Your task to perform on an android device: uninstall "Lyft - Rideshare, Bikes, Scooters & Transit" Image 0: 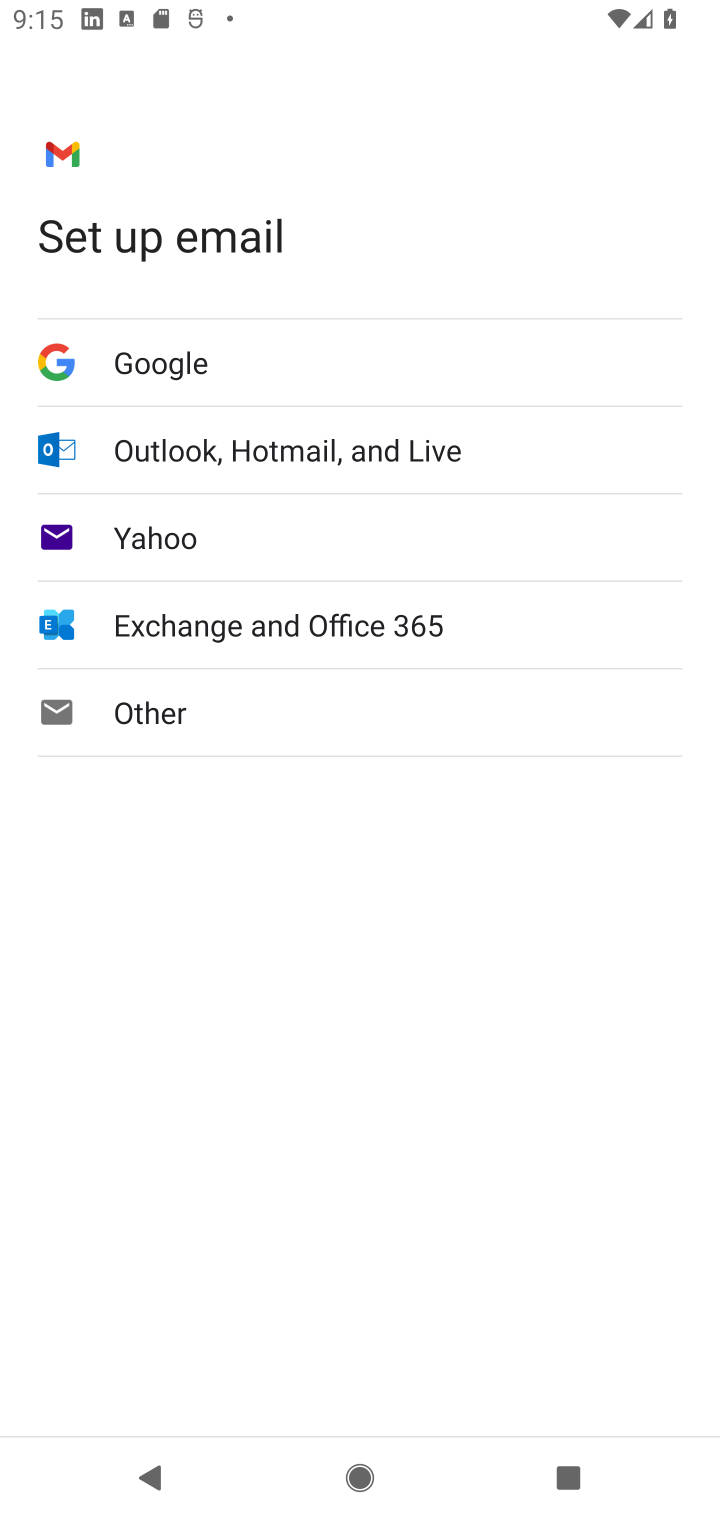
Step 0: press home button
Your task to perform on an android device: uninstall "Lyft - Rideshare, Bikes, Scooters & Transit" Image 1: 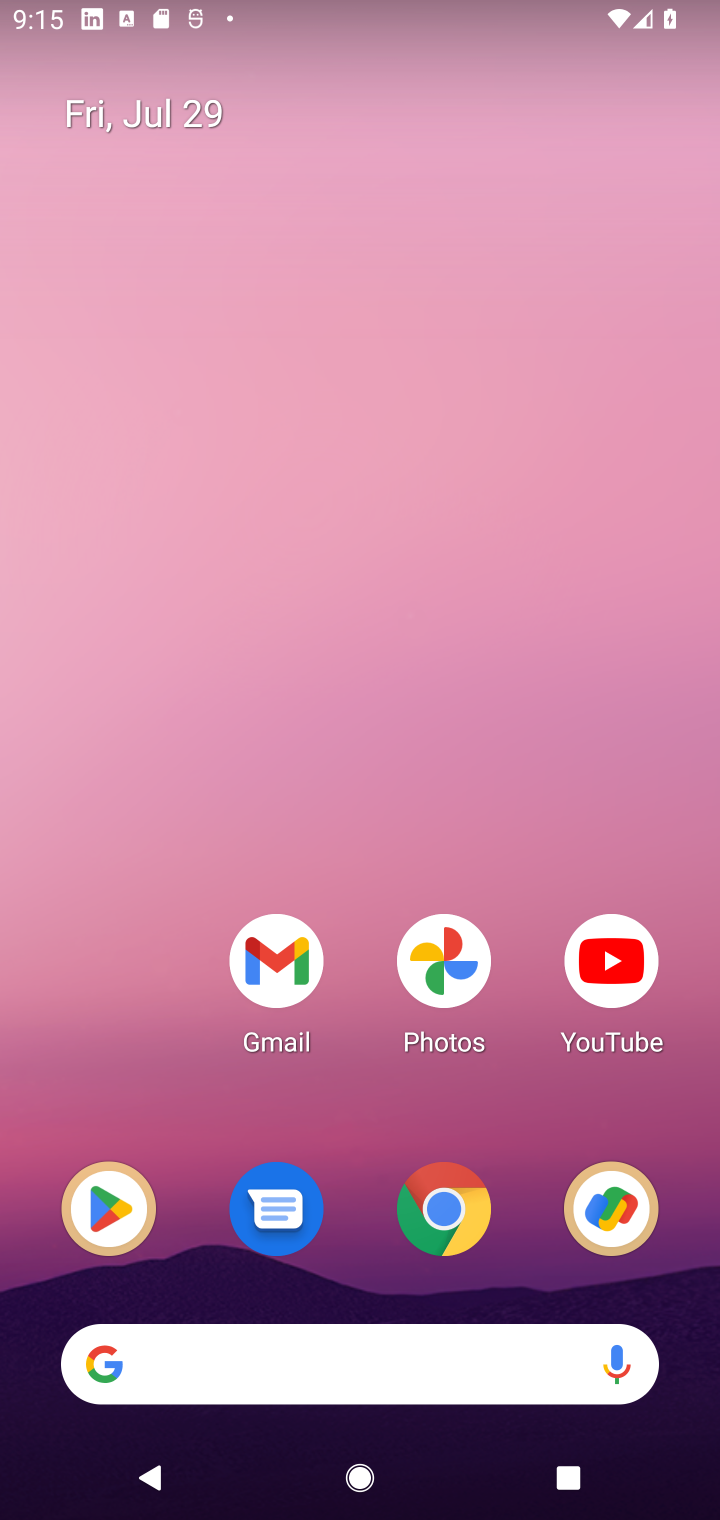
Step 1: click (120, 1216)
Your task to perform on an android device: uninstall "Lyft - Rideshare, Bikes, Scooters & Transit" Image 2: 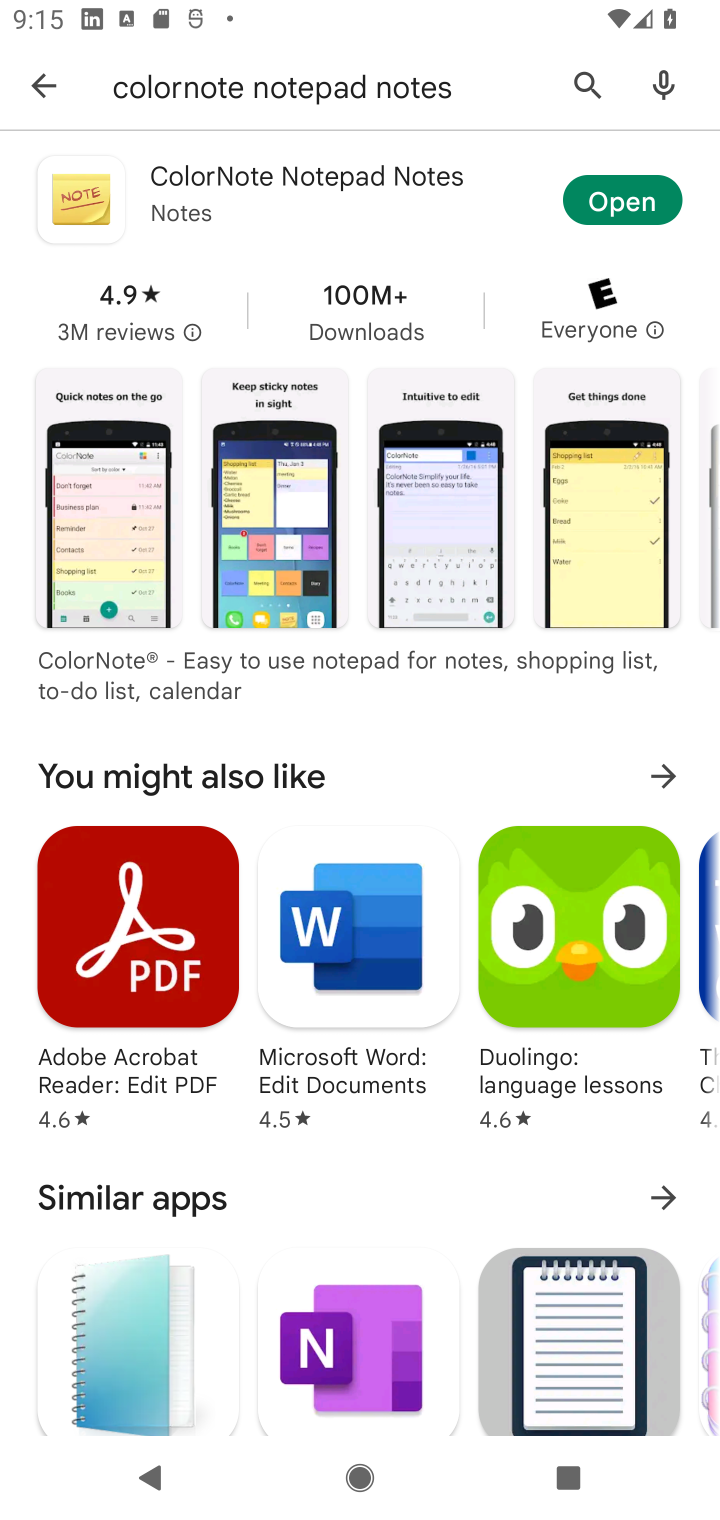
Step 2: click (566, 83)
Your task to perform on an android device: uninstall "Lyft - Rideshare, Bikes, Scooters & Transit" Image 3: 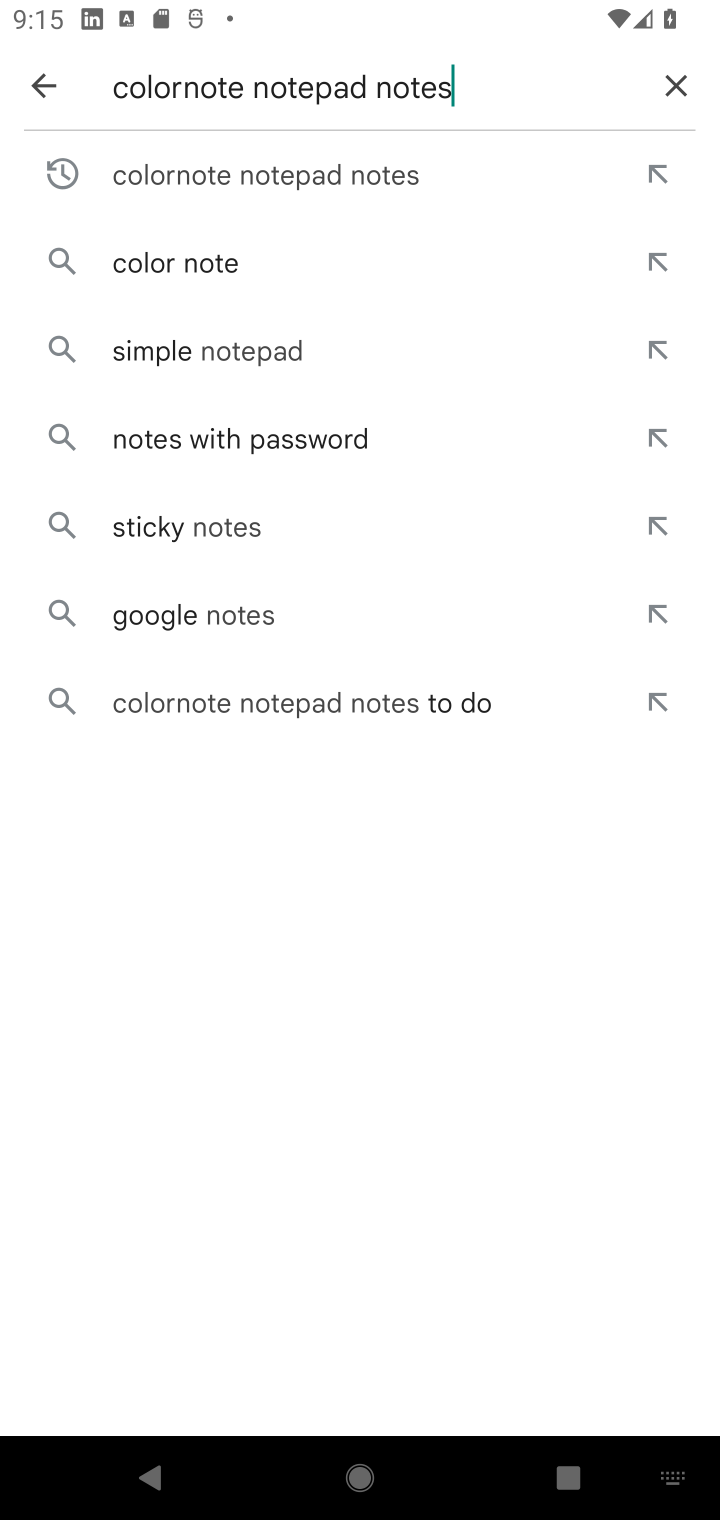
Step 3: click (670, 81)
Your task to perform on an android device: uninstall "Lyft - Rideshare, Bikes, Scooters & Transit" Image 4: 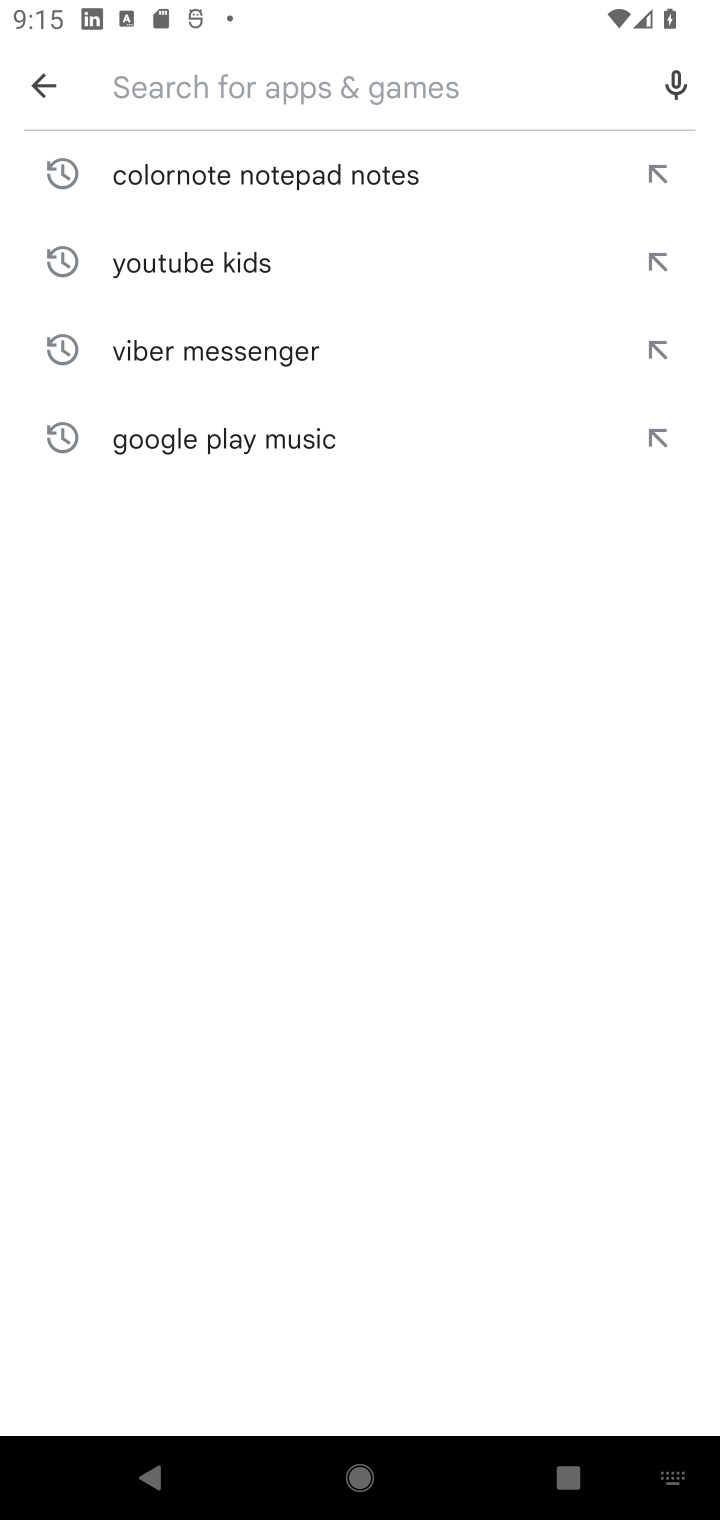
Step 4: type "Lyft - Rideshare, Bikes, Scooters & Transit"
Your task to perform on an android device: uninstall "Lyft - Rideshare, Bikes, Scooters & Transit" Image 5: 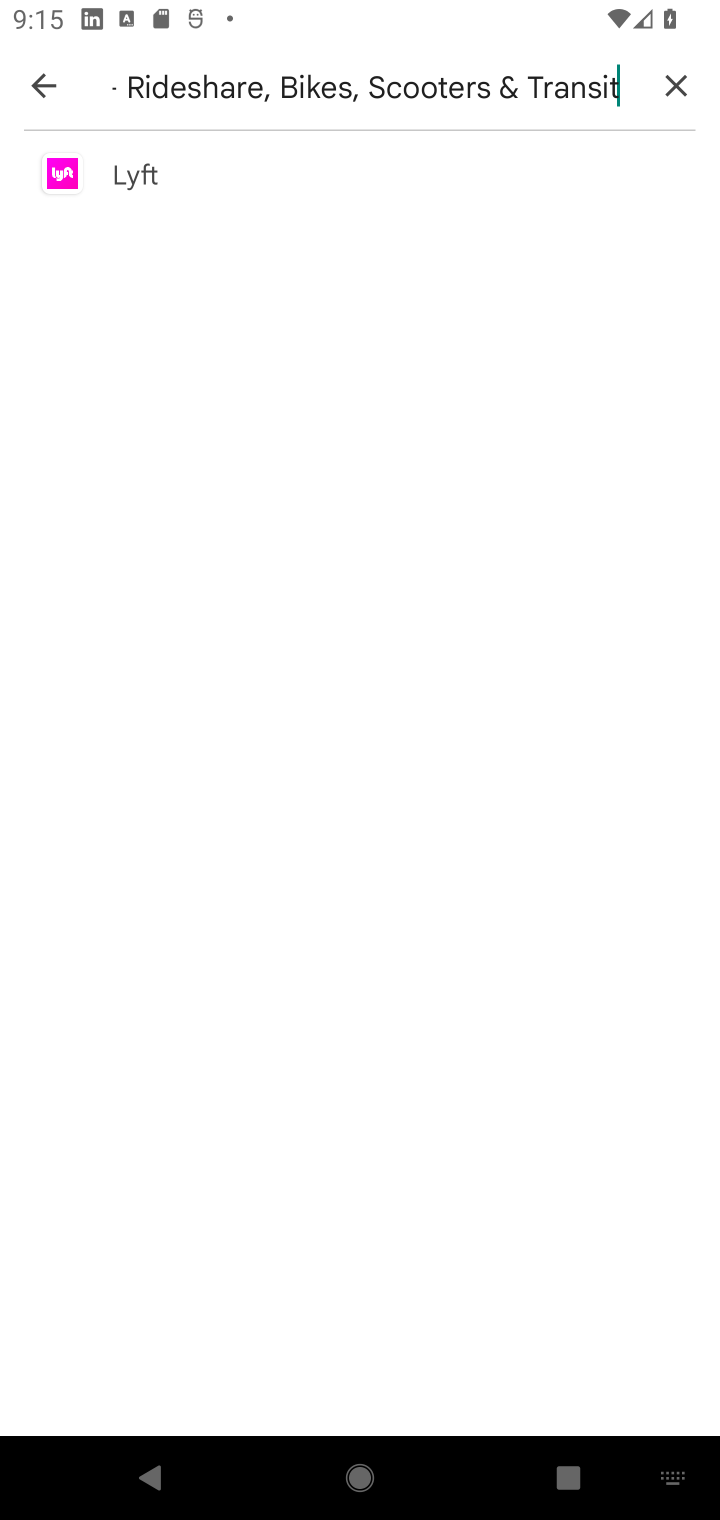
Step 5: click (135, 180)
Your task to perform on an android device: uninstall "Lyft - Rideshare, Bikes, Scooters & Transit" Image 6: 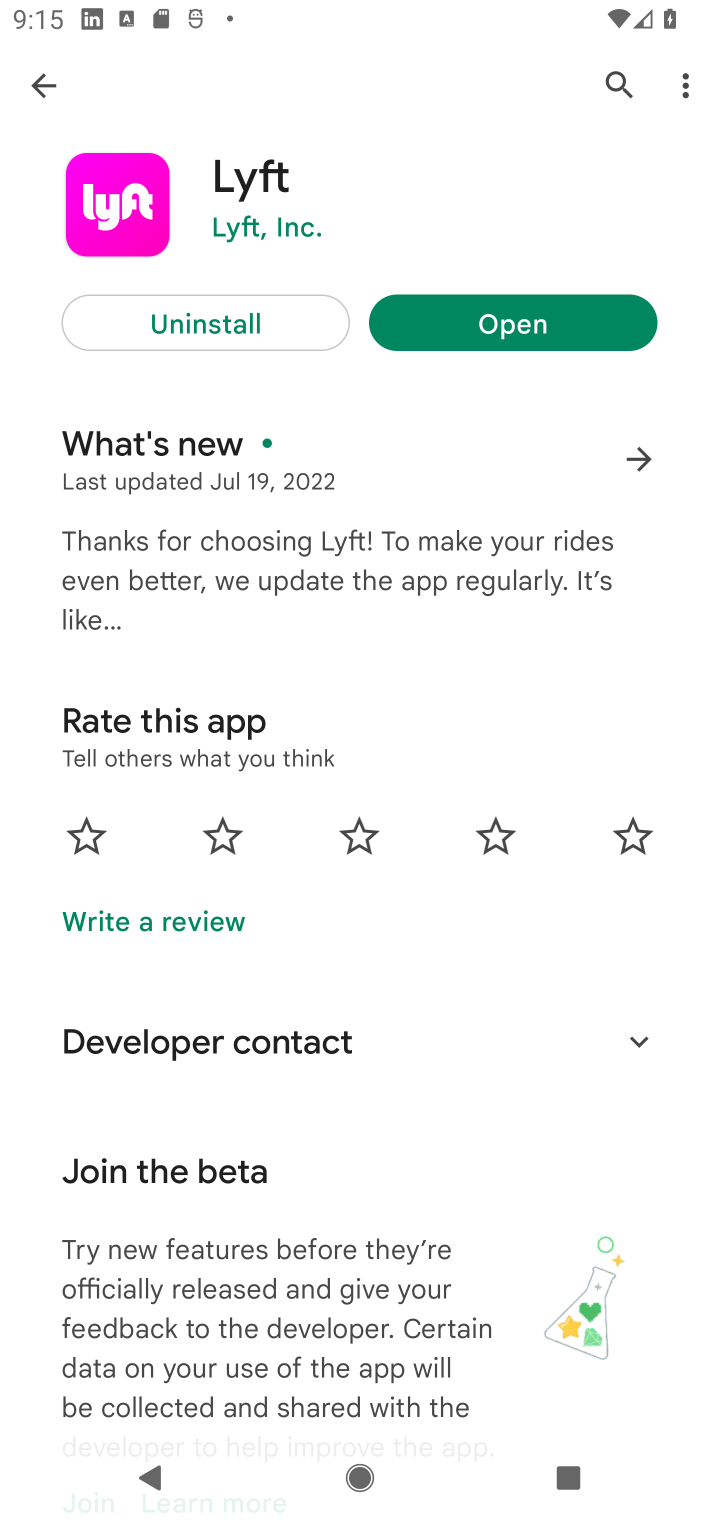
Step 6: click (171, 319)
Your task to perform on an android device: uninstall "Lyft - Rideshare, Bikes, Scooters & Transit" Image 7: 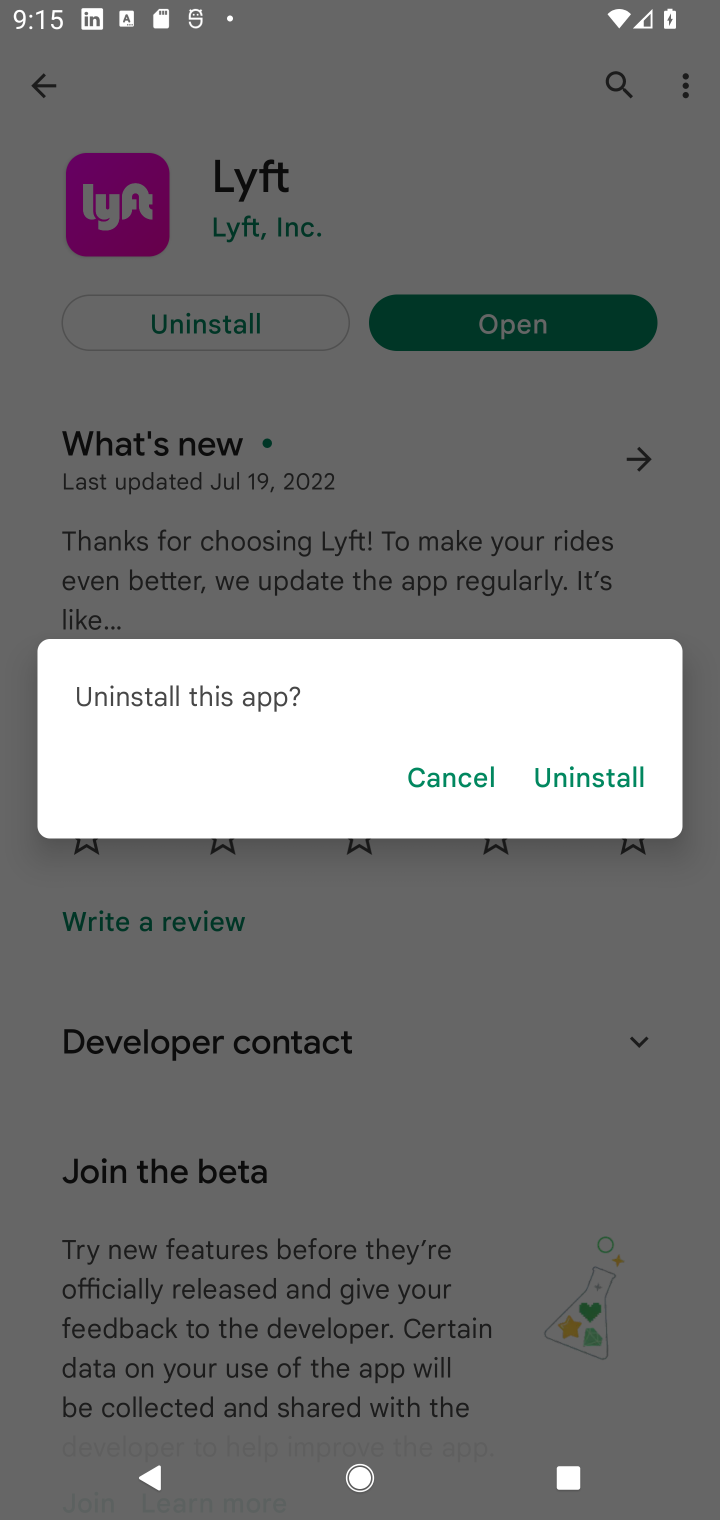
Step 7: click (554, 766)
Your task to perform on an android device: uninstall "Lyft - Rideshare, Bikes, Scooters & Transit" Image 8: 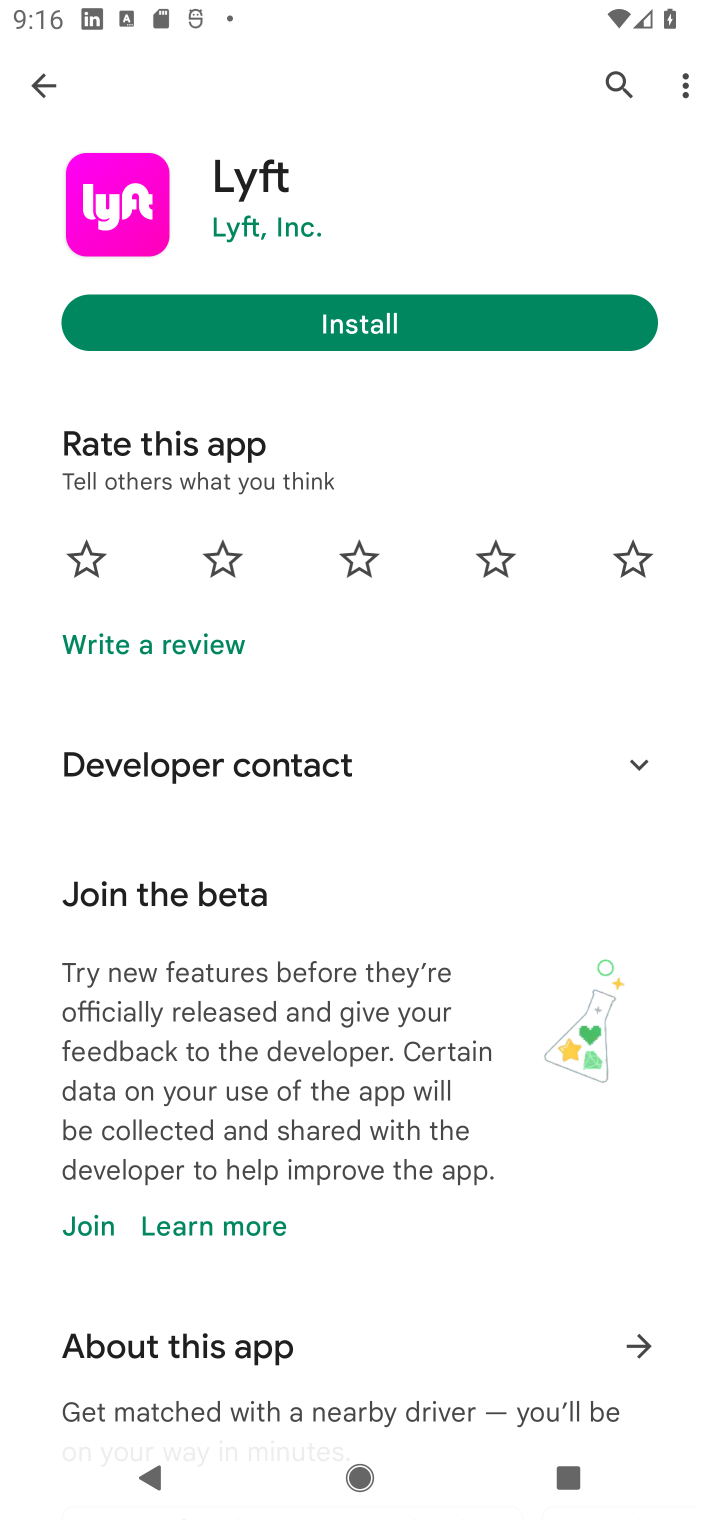
Step 8: task complete